Your task to perform on an android device: turn off location Image 0: 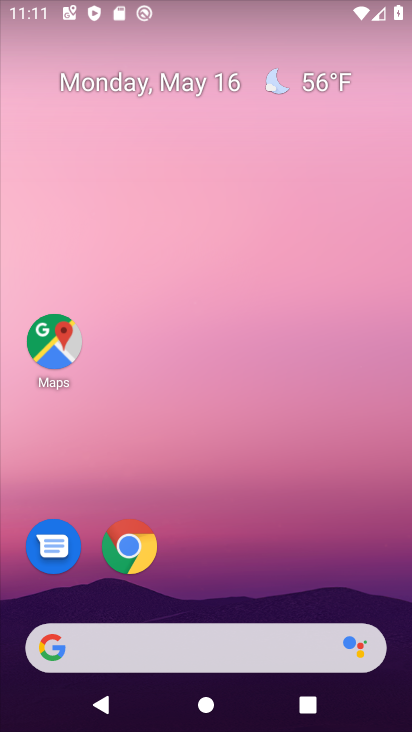
Step 0: drag from (285, 533) to (281, 72)
Your task to perform on an android device: turn off location Image 1: 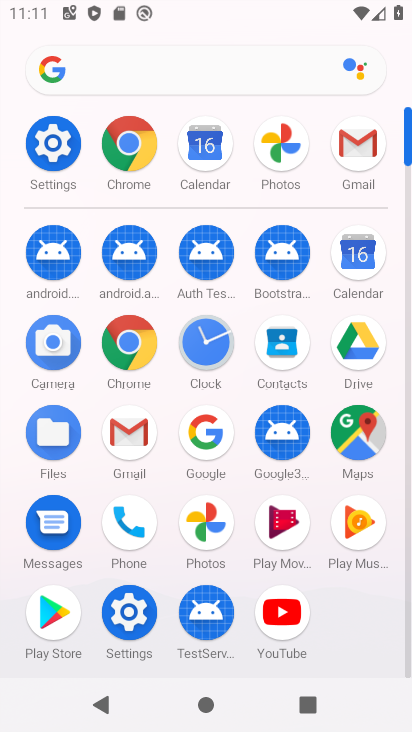
Step 1: click (54, 152)
Your task to perform on an android device: turn off location Image 2: 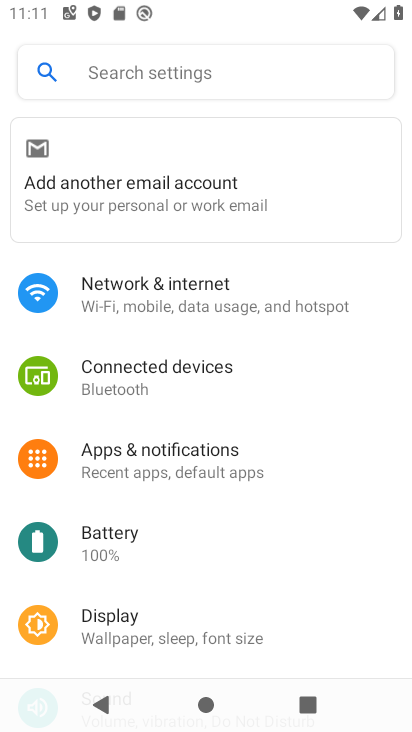
Step 2: drag from (201, 571) to (203, 233)
Your task to perform on an android device: turn off location Image 3: 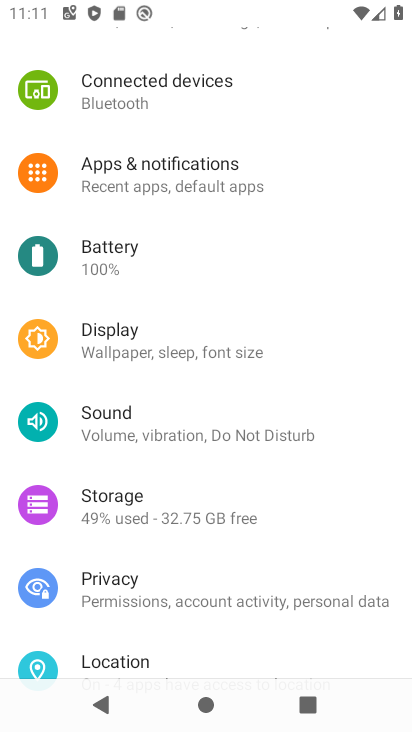
Step 3: drag from (199, 565) to (204, 236)
Your task to perform on an android device: turn off location Image 4: 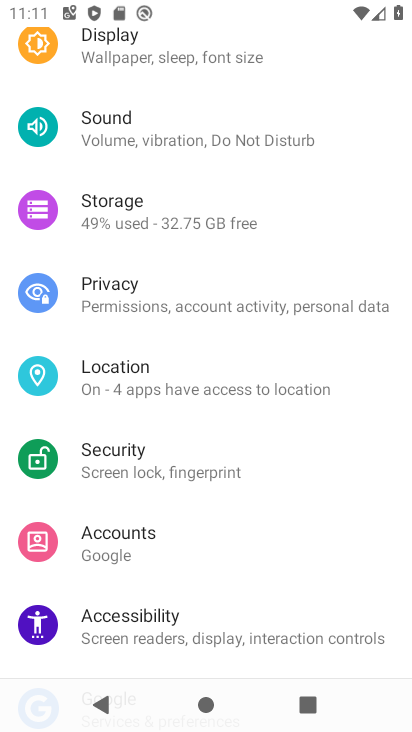
Step 4: click (149, 371)
Your task to perform on an android device: turn off location Image 5: 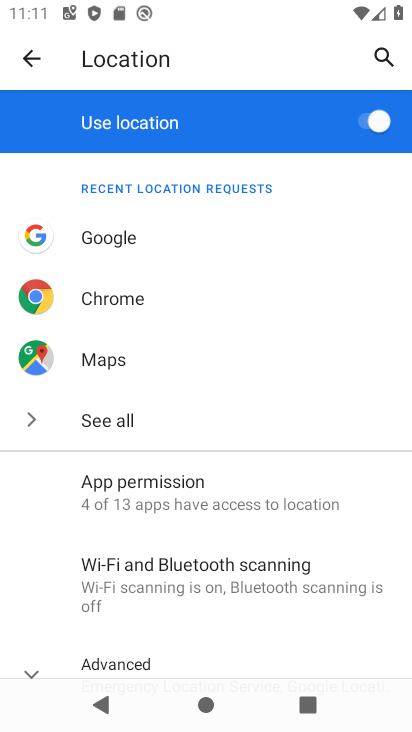
Step 5: click (373, 125)
Your task to perform on an android device: turn off location Image 6: 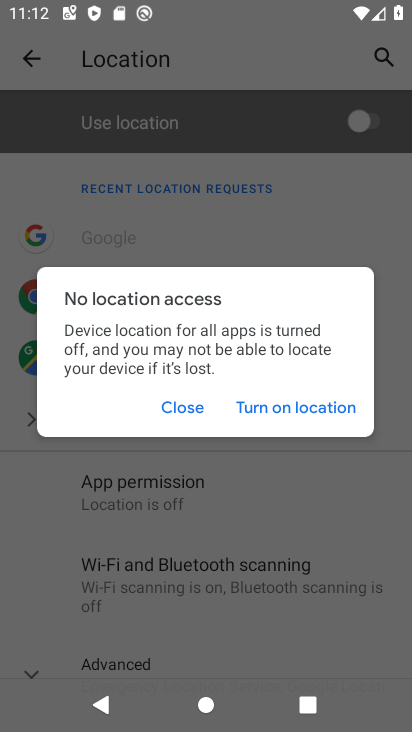
Step 6: task complete